Your task to perform on an android device: Open Google Chrome and click the shortcut for Amazon.com Image 0: 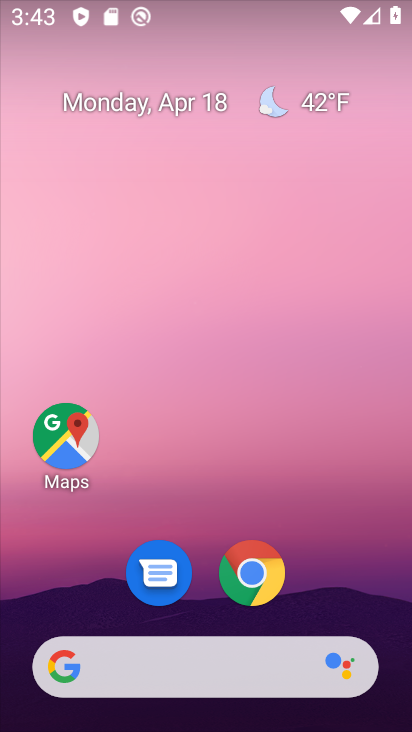
Step 0: click (268, 575)
Your task to perform on an android device: Open Google Chrome and click the shortcut for Amazon.com Image 1: 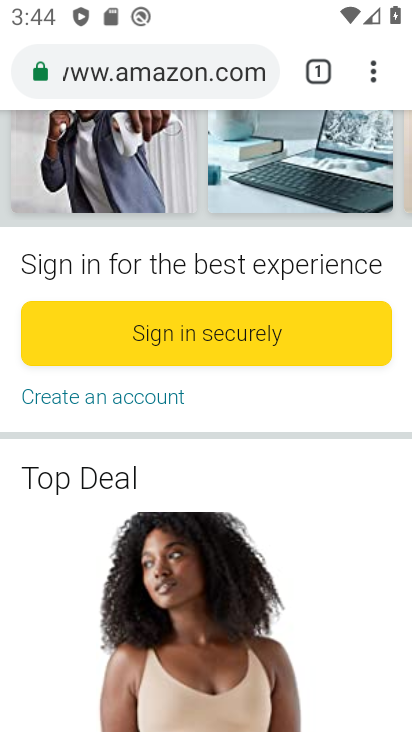
Step 1: task complete